Your task to perform on an android device: see tabs open on other devices in the chrome app Image 0: 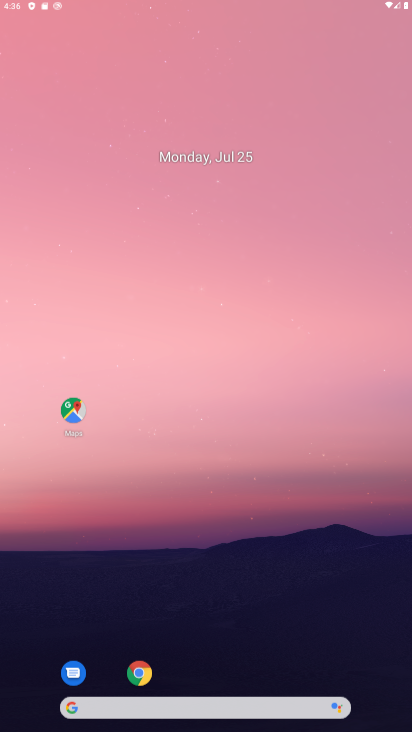
Step 0: drag from (221, 571) to (178, 65)
Your task to perform on an android device: see tabs open on other devices in the chrome app Image 1: 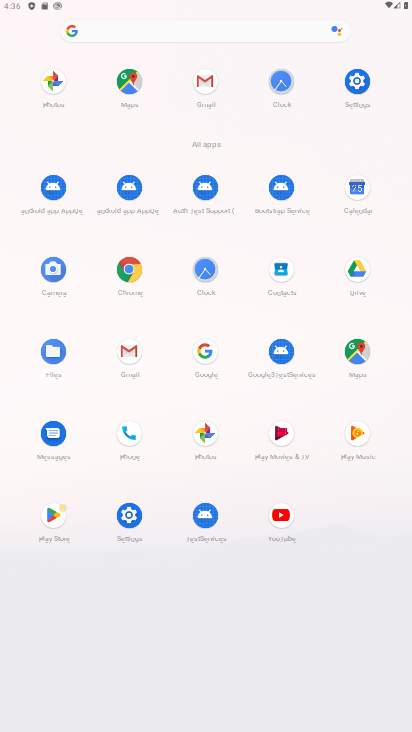
Step 1: click (125, 271)
Your task to perform on an android device: see tabs open on other devices in the chrome app Image 2: 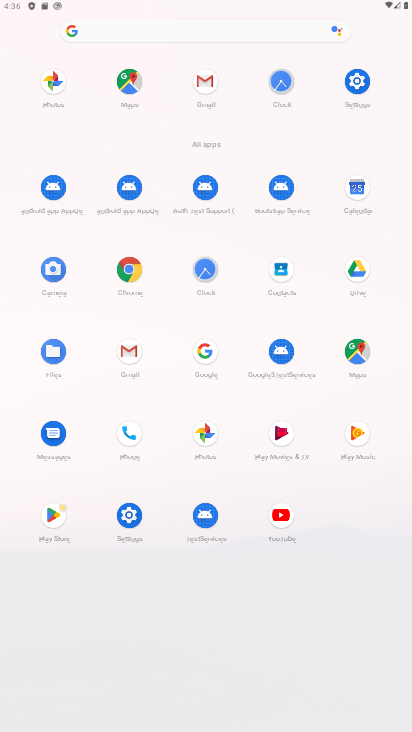
Step 2: click (128, 267)
Your task to perform on an android device: see tabs open on other devices in the chrome app Image 3: 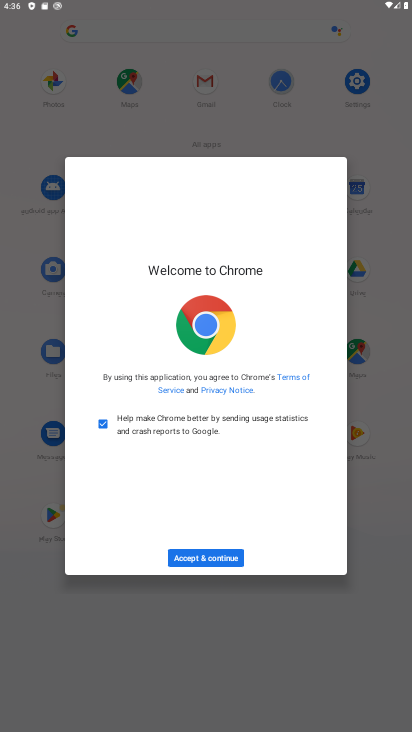
Step 3: click (207, 552)
Your task to perform on an android device: see tabs open on other devices in the chrome app Image 4: 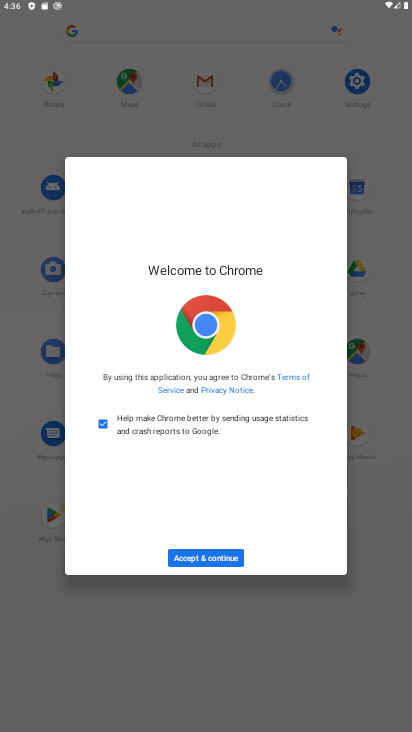
Step 4: click (207, 552)
Your task to perform on an android device: see tabs open on other devices in the chrome app Image 5: 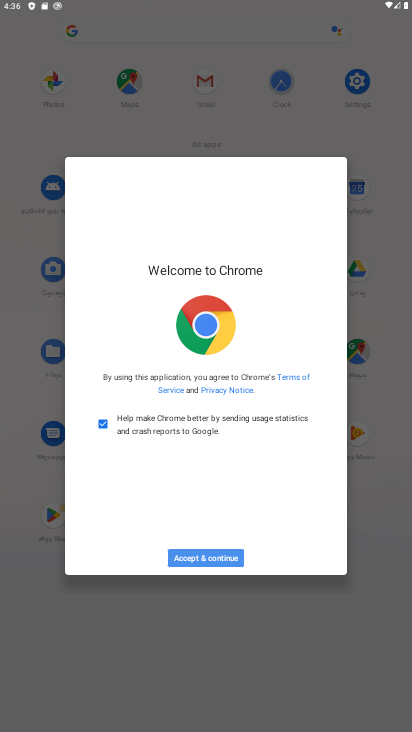
Step 5: click (209, 554)
Your task to perform on an android device: see tabs open on other devices in the chrome app Image 6: 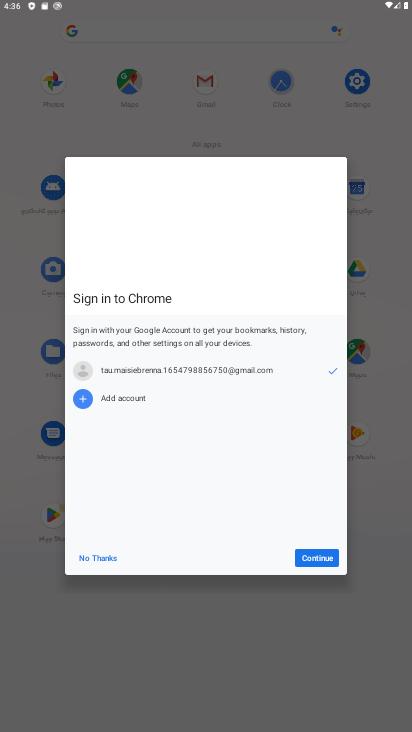
Step 6: click (208, 553)
Your task to perform on an android device: see tabs open on other devices in the chrome app Image 7: 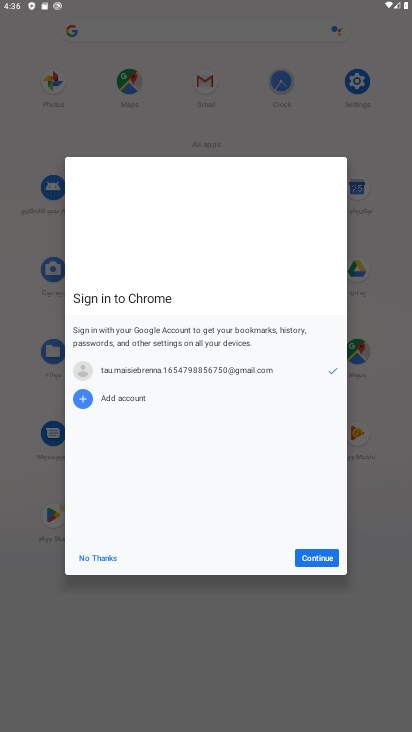
Step 7: click (104, 553)
Your task to perform on an android device: see tabs open on other devices in the chrome app Image 8: 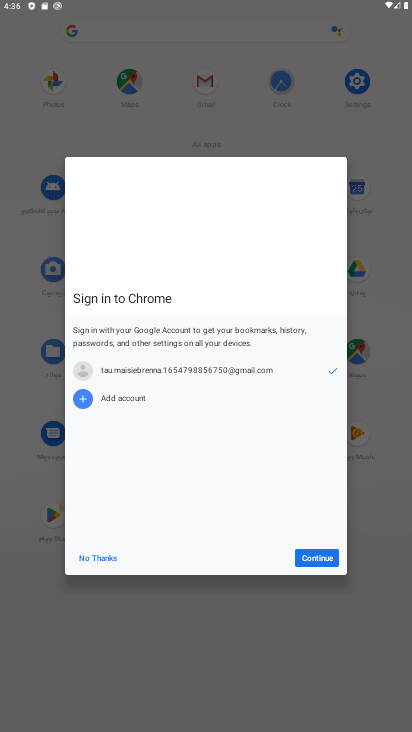
Step 8: click (105, 554)
Your task to perform on an android device: see tabs open on other devices in the chrome app Image 9: 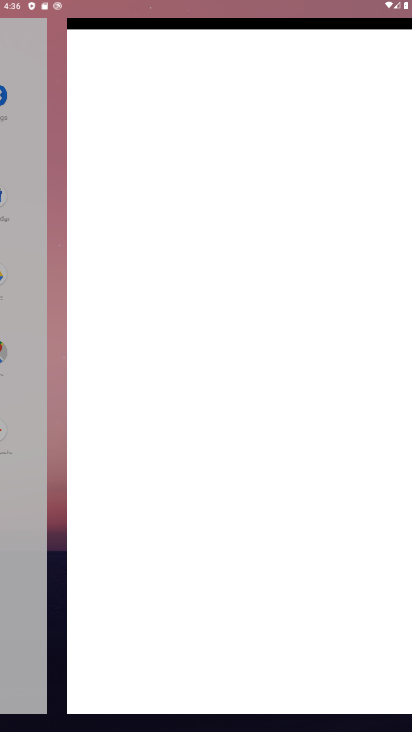
Step 9: click (103, 553)
Your task to perform on an android device: see tabs open on other devices in the chrome app Image 10: 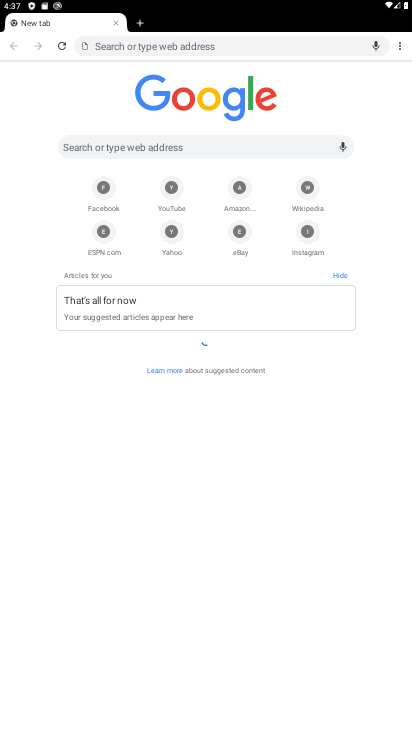
Step 10: drag from (400, 43) to (308, 41)
Your task to perform on an android device: see tabs open on other devices in the chrome app Image 11: 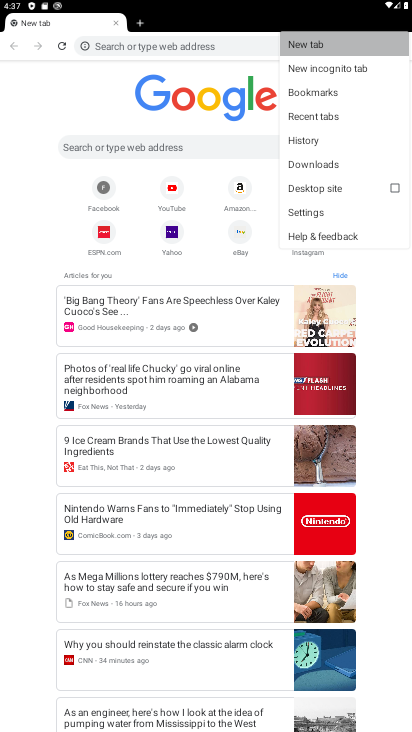
Step 11: click (314, 44)
Your task to perform on an android device: see tabs open on other devices in the chrome app Image 12: 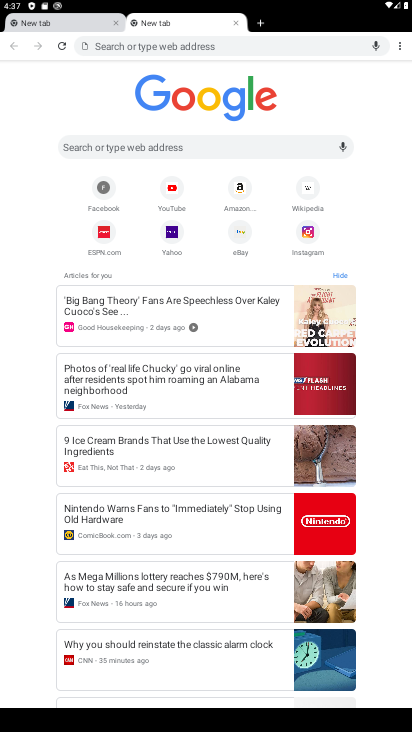
Step 12: task complete